Your task to perform on an android device: check out phone information Image 0: 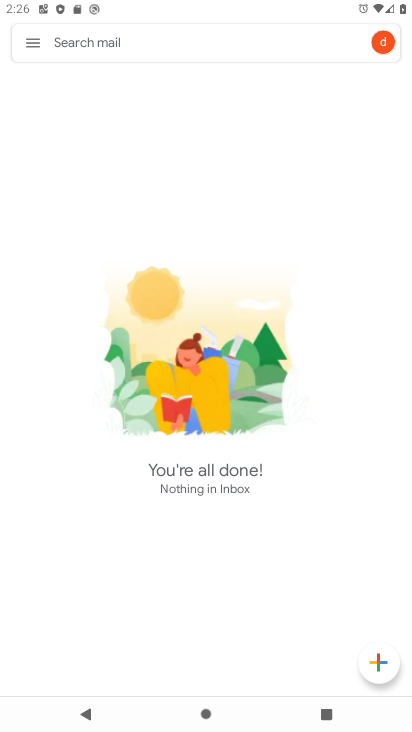
Step 0: press home button
Your task to perform on an android device: check out phone information Image 1: 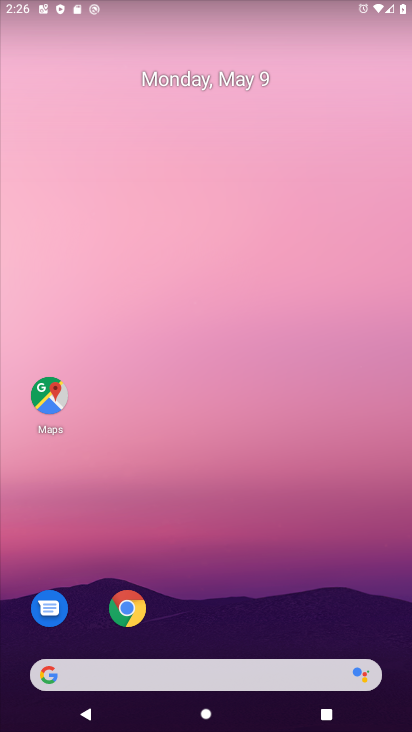
Step 1: drag from (224, 558) to (284, 53)
Your task to perform on an android device: check out phone information Image 2: 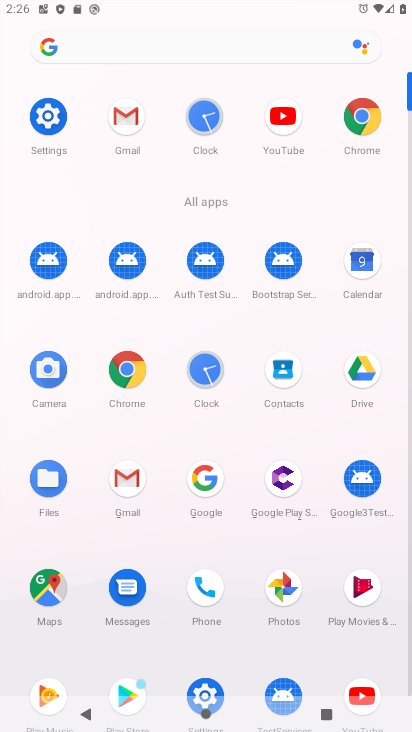
Step 2: click (36, 134)
Your task to perform on an android device: check out phone information Image 3: 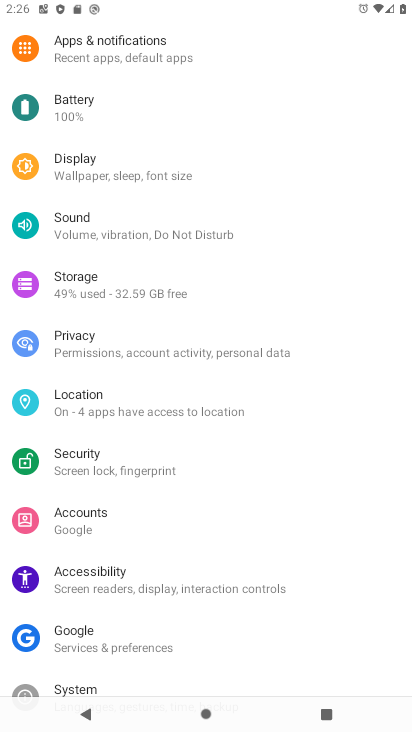
Step 3: drag from (112, 643) to (198, 87)
Your task to perform on an android device: check out phone information Image 4: 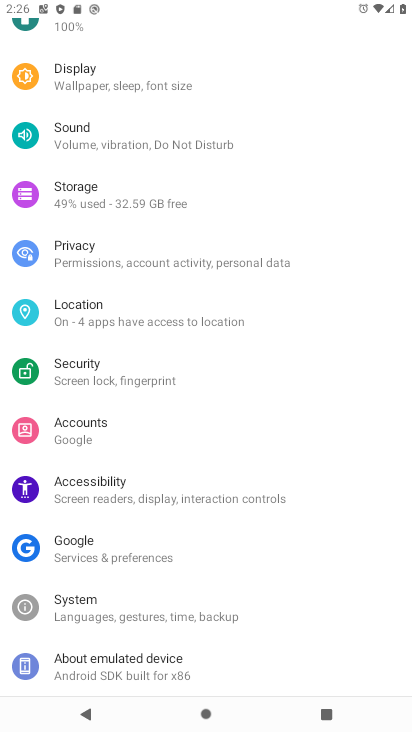
Step 4: click (160, 691)
Your task to perform on an android device: check out phone information Image 5: 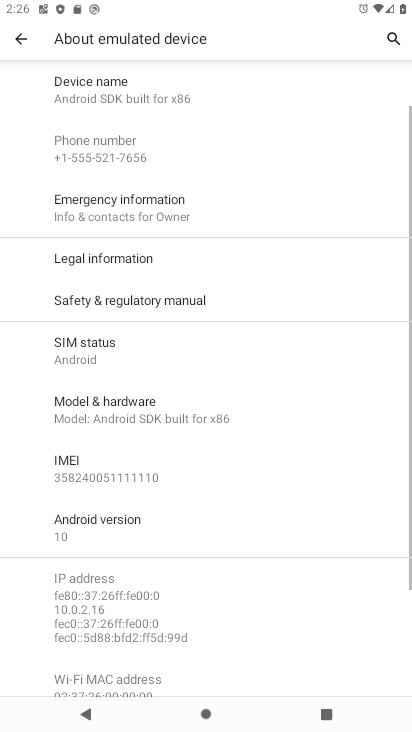
Step 5: task complete